Your task to perform on an android device: turn off location history Image 0: 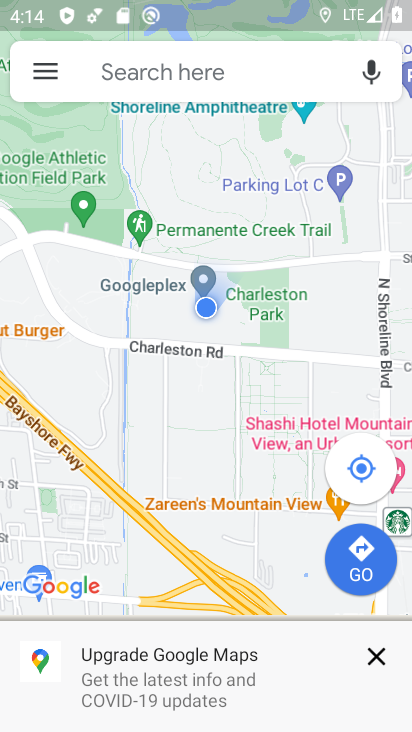
Step 0: press home button
Your task to perform on an android device: turn off location history Image 1: 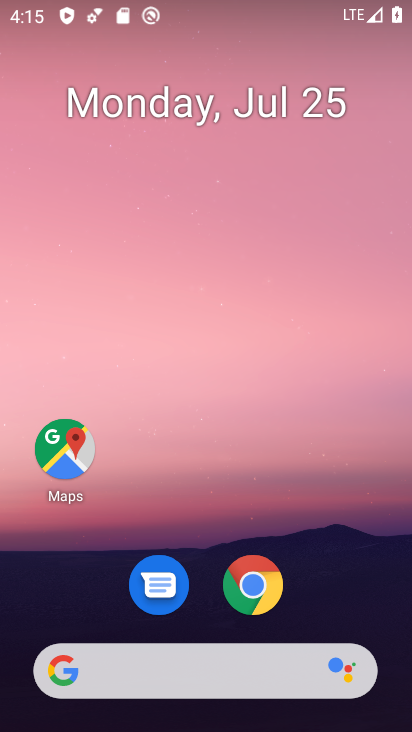
Step 1: drag from (319, 595) to (327, 27)
Your task to perform on an android device: turn off location history Image 2: 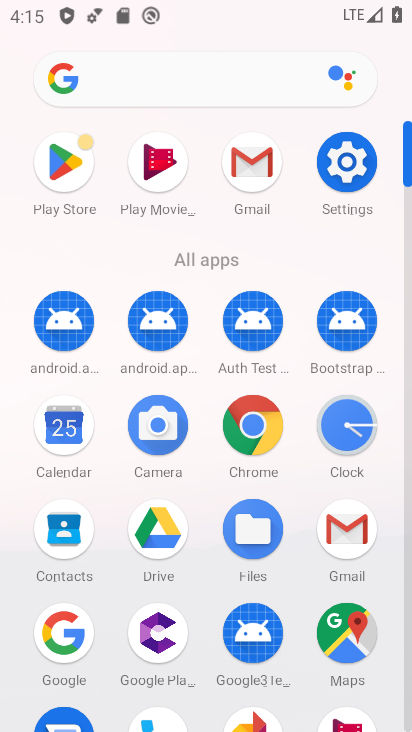
Step 2: click (347, 166)
Your task to perform on an android device: turn off location history Image 3: 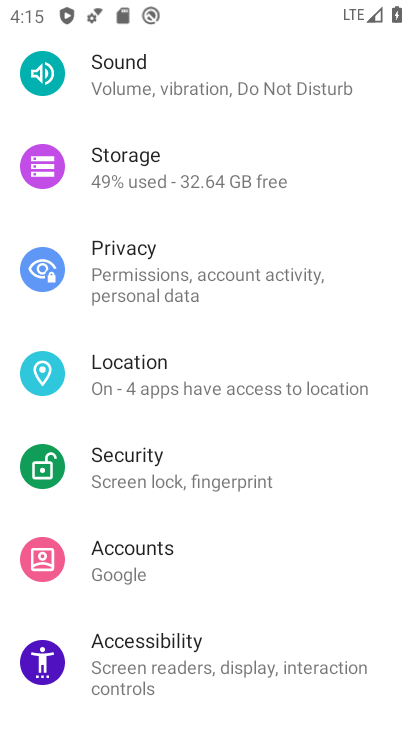
Step 3: click (225, 373)
Your task to perform on an android device: turn off location history Image 4: 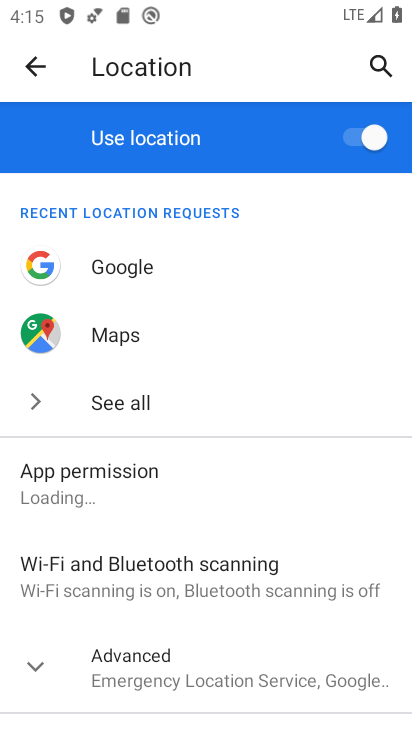
Step 4: drag from (223, 523) to (265, 179)
Your task to perform on an android device: turn off location history Image 5: 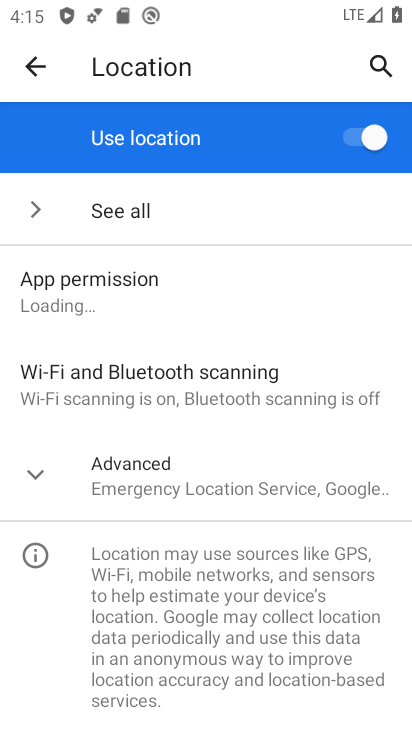
Step 5: click (39, 470)
Your task to perform on an android device: turn off location history Image 6: 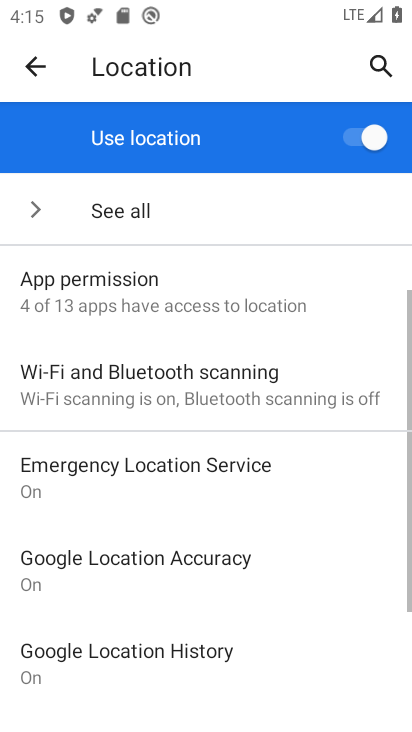
Step 6: drag from (236, 603) to (239, 355)
Your task to perform on an android device: turn off location history Image 7: 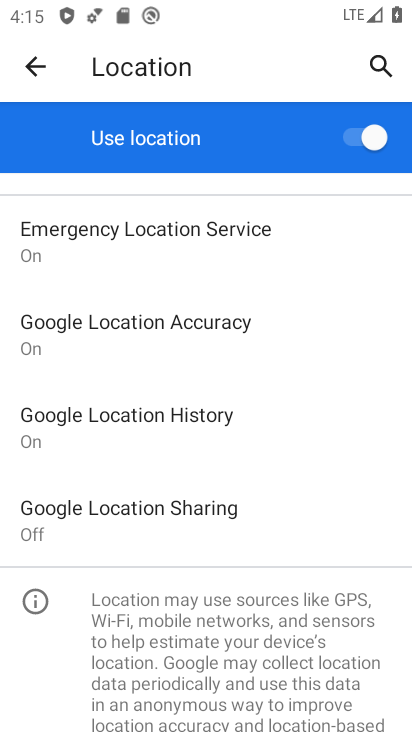
Step 7: click (218, 412)
Your task to perform on an android device: turn off location history Image 8: 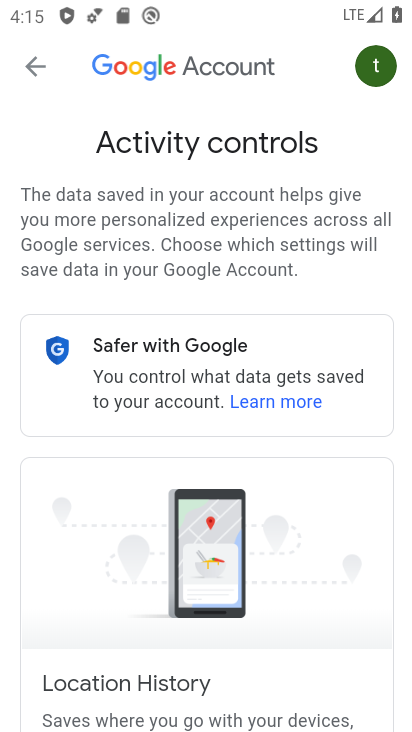
Step 8: drag from (271, 586) to (294, 155)
Your task to perform on an android device: turn off location history Image 9: 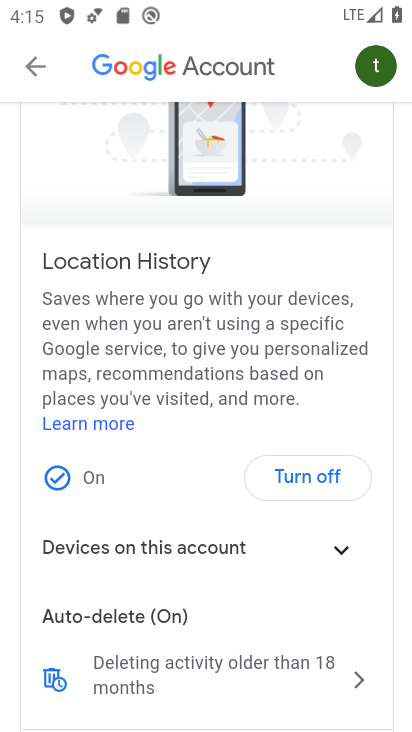
Step 9: click (328, 477)
Your task to perform on an android device: turn off location history Image 10: 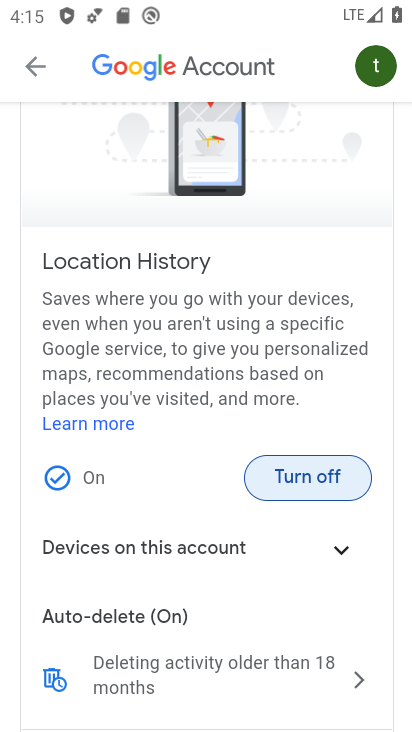
Step 10: click (328, 477)
Your task to perform on an android device: turn off location history Image 11: 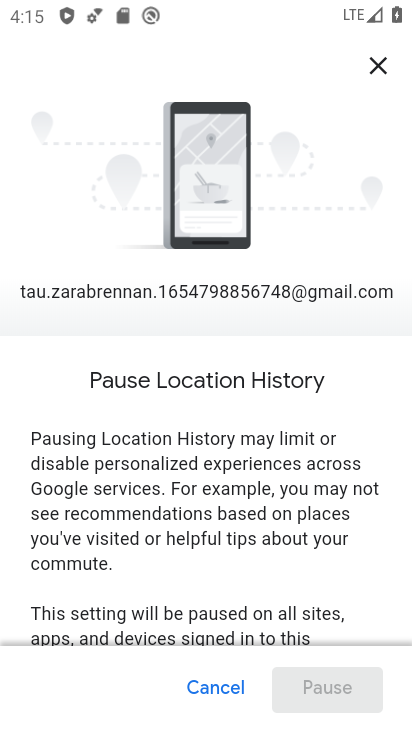
Step 11: drag from (239, 586) to (240, 133)
Your task to perform on an android device: turn off location history Image 12: 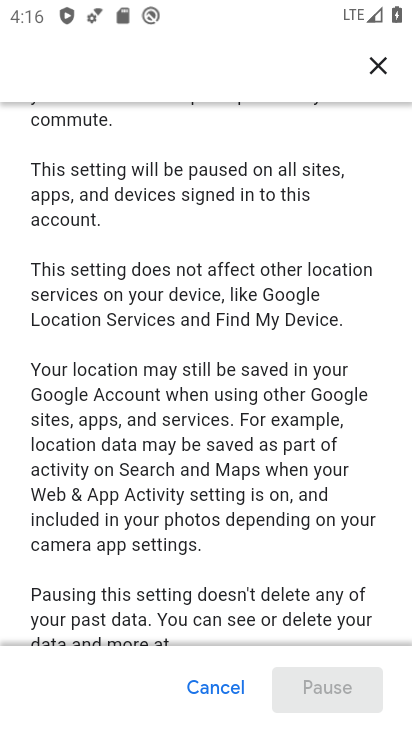
Step 12: drag from (257, 512) to (260, 122)
Your task to perform on an android device: turn off location history Image 13: 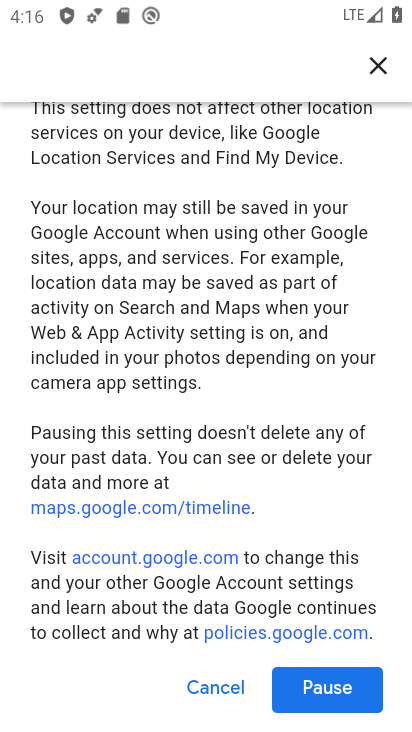
Step 13: click (321, 703)
Your task to perform on an android device: turn off location history Image 14: 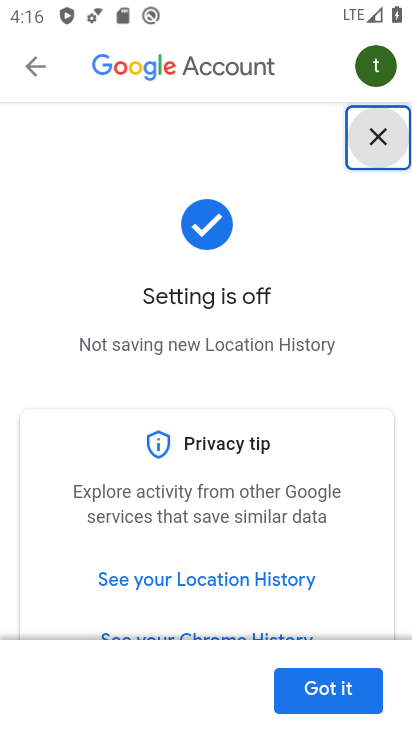
Step 14: click (318, 695)
Your task to perform on an android device: turn off location history Image 15: 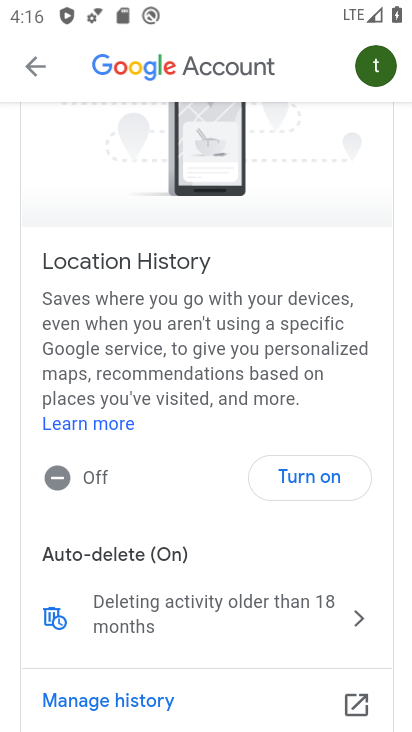
Step 15: task complete